Your task to perform on an android device: toggle show notifications on the lock screen Image 0: 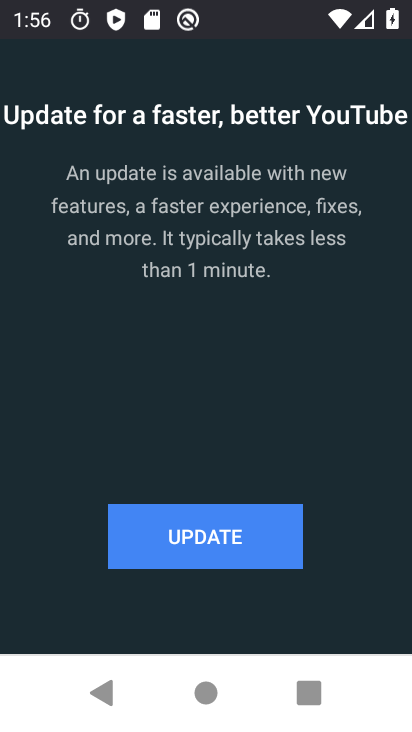
Step 0: press home button
Your task to perform on an android device: toggle show notifications on the lock screen Image 1: 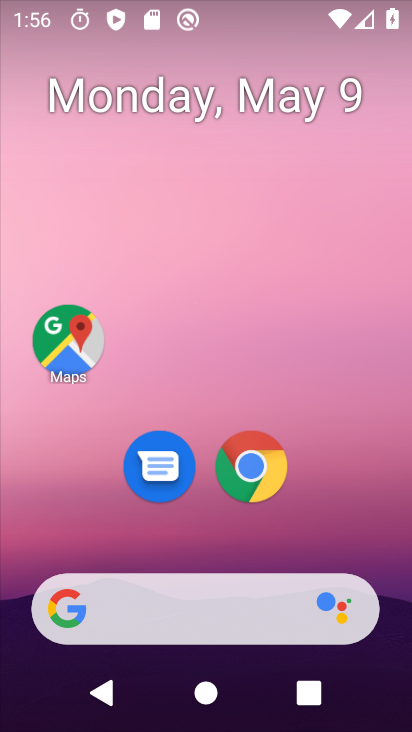
Step 1: drag from (212, 637) to (228, 289)
Your task to perform on an android device: toggle show notifications on the lock screen Image 2: 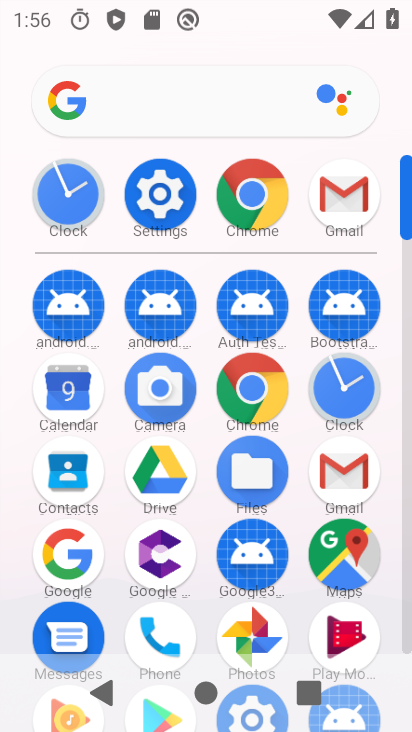
Step 2: click (158, 197)
Your task to perform on an android device: toggle show notifications on the lock screen Image 3: 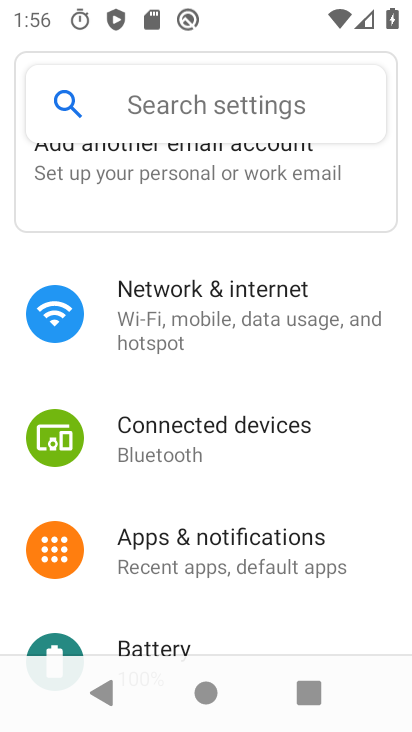
Step 3: click (228, 532)
Your task to perform on an android device: toggle show notifications on the lock screen Image 4: 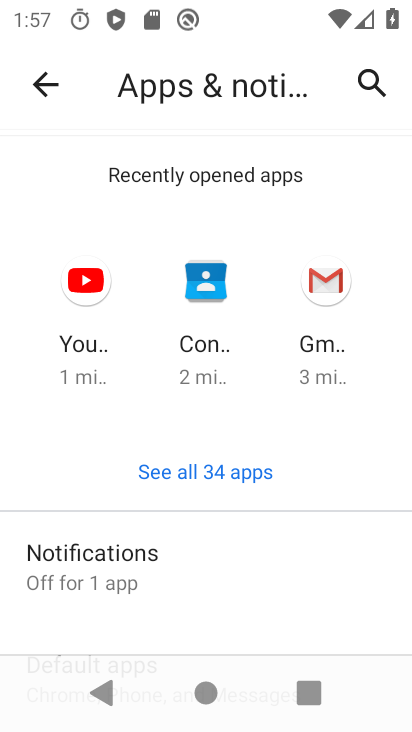
Step 4: click (198, 563)
Your task to perform on an android device: toggle show notifications on the lock screen Image 5: 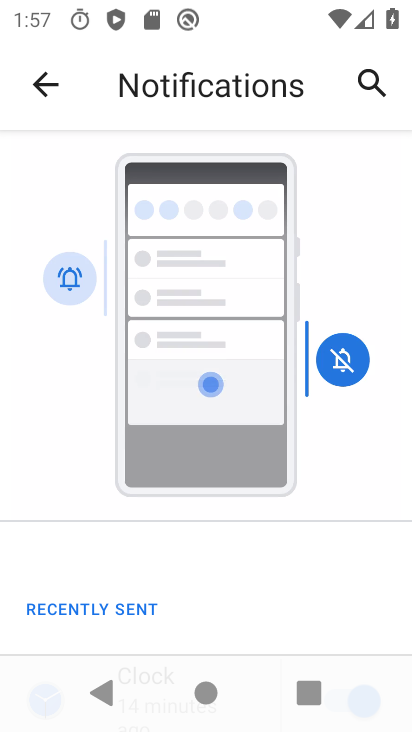
Step 5: click (183, 361)
Your task to perform on an android device: toggle show notifications on the lock screen Image 6: 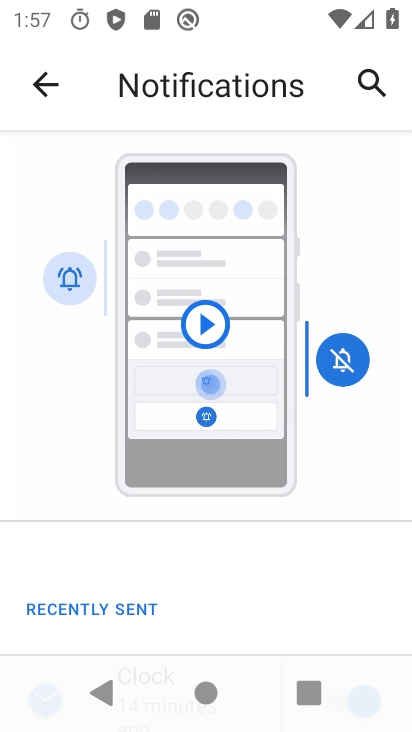
Step 6: drag from (210, 394) to (222, 291)
Your task to perform on an android device: toggle show notifications on the lock screen Image 7: 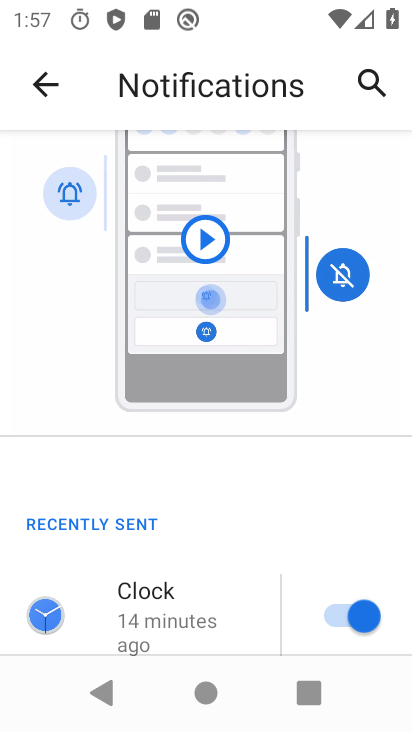
Step 7: drag from (213, 594) to (235, 239)
Your task to perform on an android device: toggle show notifications on the lock screen Image 8: 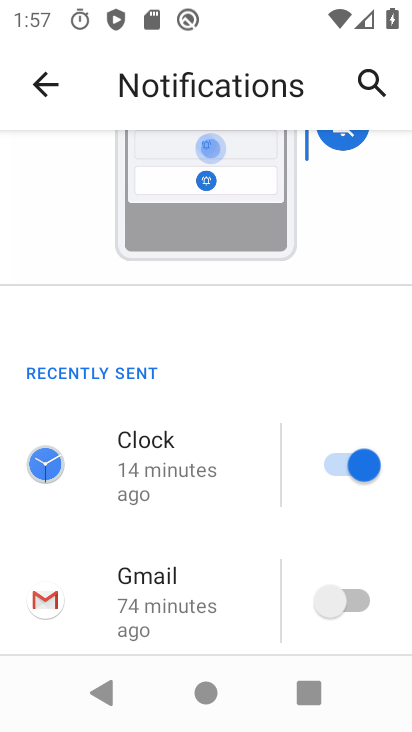
Step 8: drag from (218, 415) to (219, 295)
Your task to perform on an android device: toggle show notifications on the lock screen Image 9: 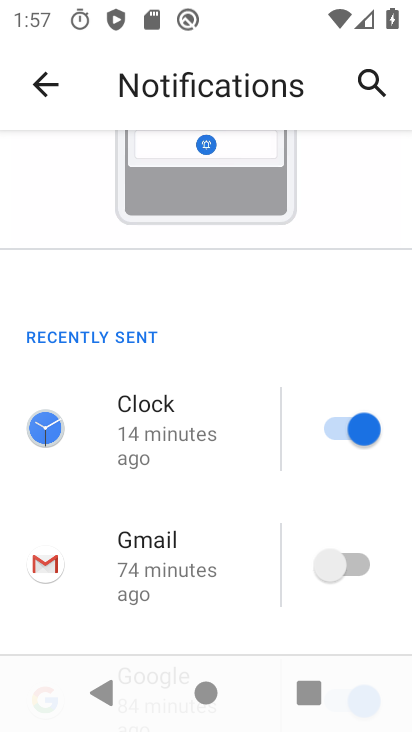
Step 9: drag from (195, 528) to (188, 391)
Your task to perform on an android device: toggle show notifications on the lock screen Image 10: 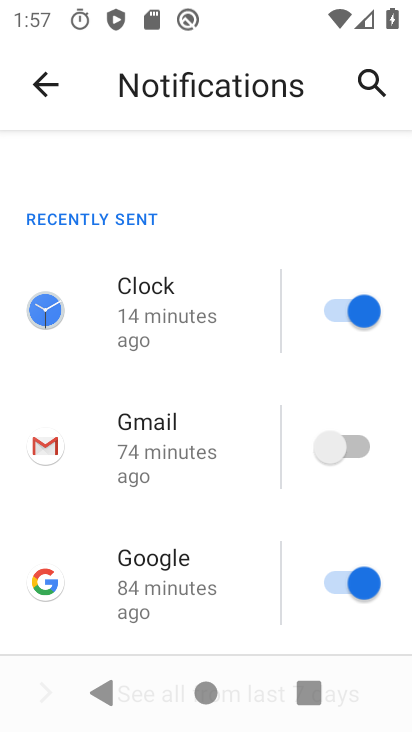
Step 10: drag from (214, 367) to (223, 547)
Your task to perform on an android device: toggle show notifications on the lock screen Image 11: 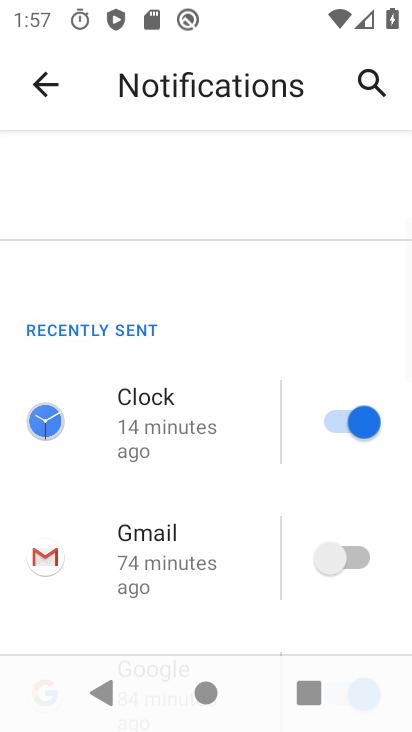
Step 11: drag from (223, 547) to (241, 188)
Your task to perform on an android device: toggle show notifications on the lock screen Image 12: 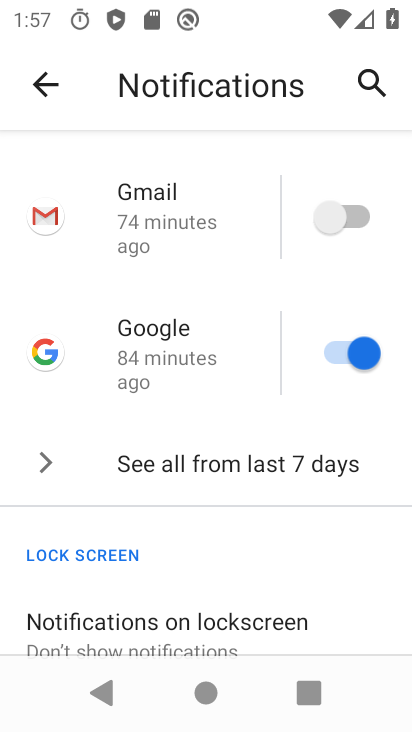
Step 12: drag from (246, 439) to (246, 283)
Your task to perform on an android device: toggle show notifications on the lock screen Image 13: 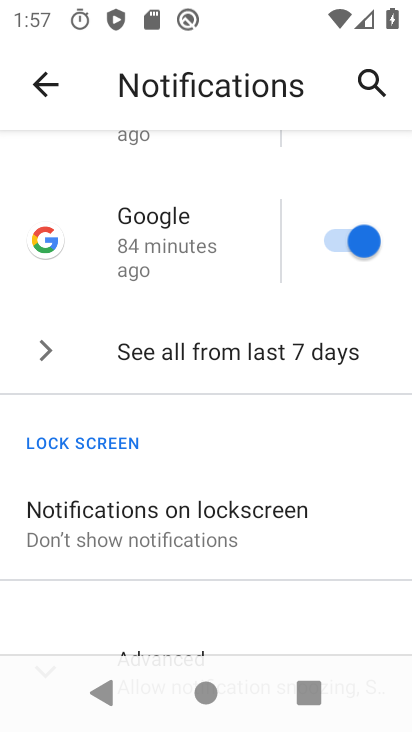
Step 13: click (234, 548)
Your task to perform on an android device: toggle show notifications on the lock screen Image 14: 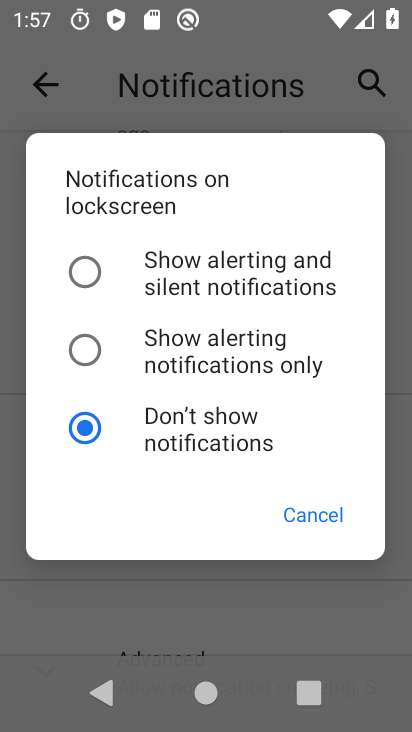
Step 14: click (85, 274)
Your task to perform on an android device: toggle show notifications on the lock screen Image 15: 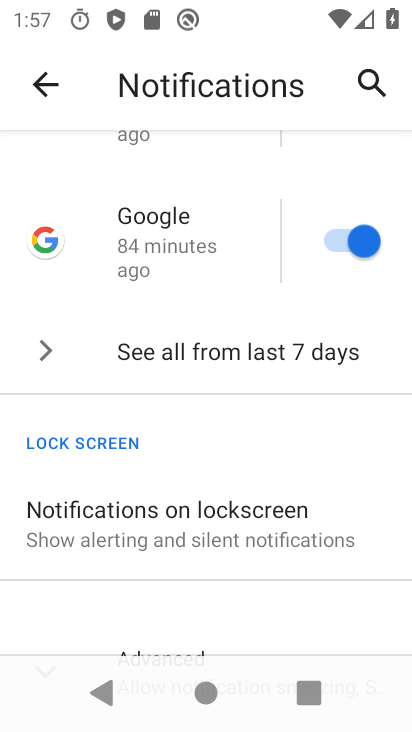
Step 15: task complete